Your task to perform on an android device: What's the weather today? Image 0: 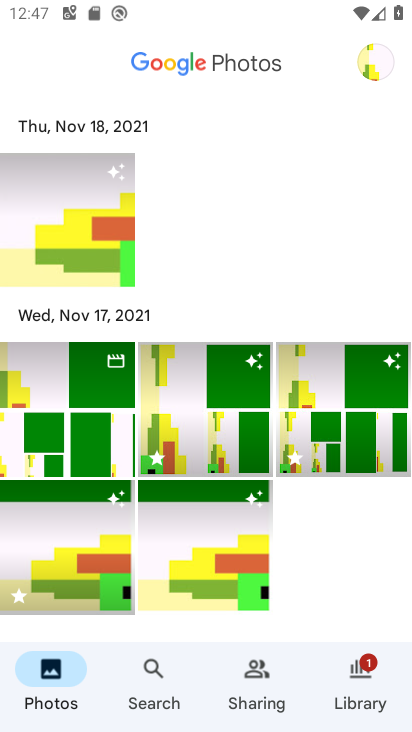
Step 0: press home button
Your task to perform on an android device: What's the weather today? Image 1: 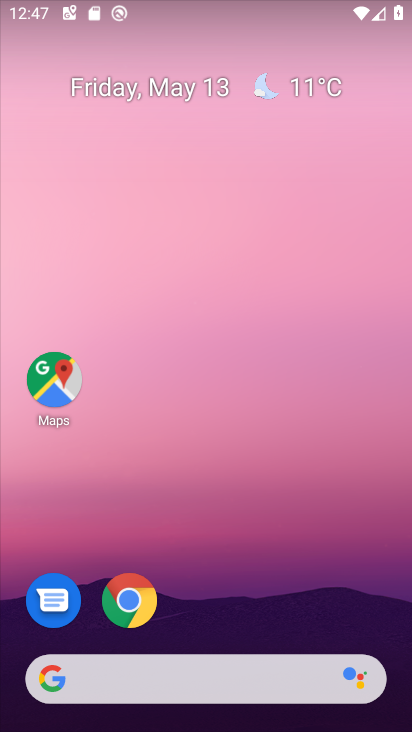
Step 1: click (195, 669)
Your task to perform on an android device: What's the weather today? Image 2: 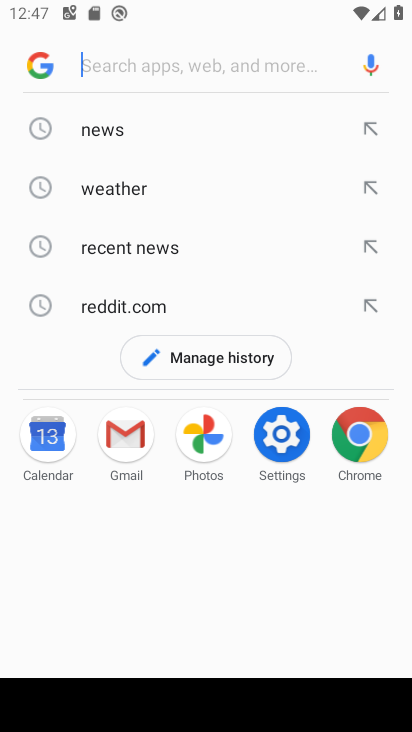
Step 2: click (124, 190)
Your task to perform on an android device: What's the weather today? Image 3: 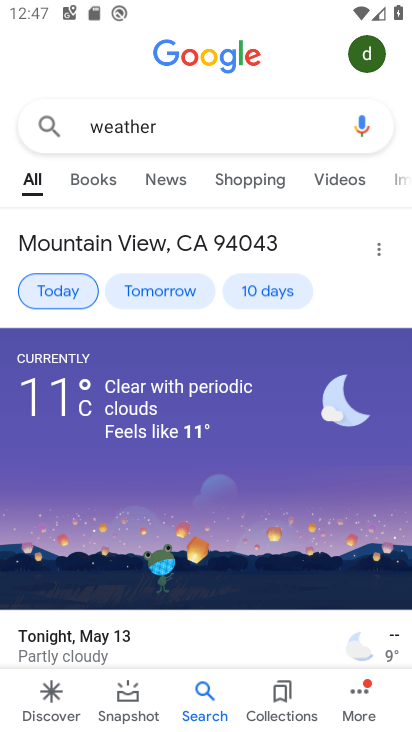
Step 3: task complete